Your task to perform on an android device: open app "Speedtest by Ookla" (install if not already installed) and go to login screen Image 0: 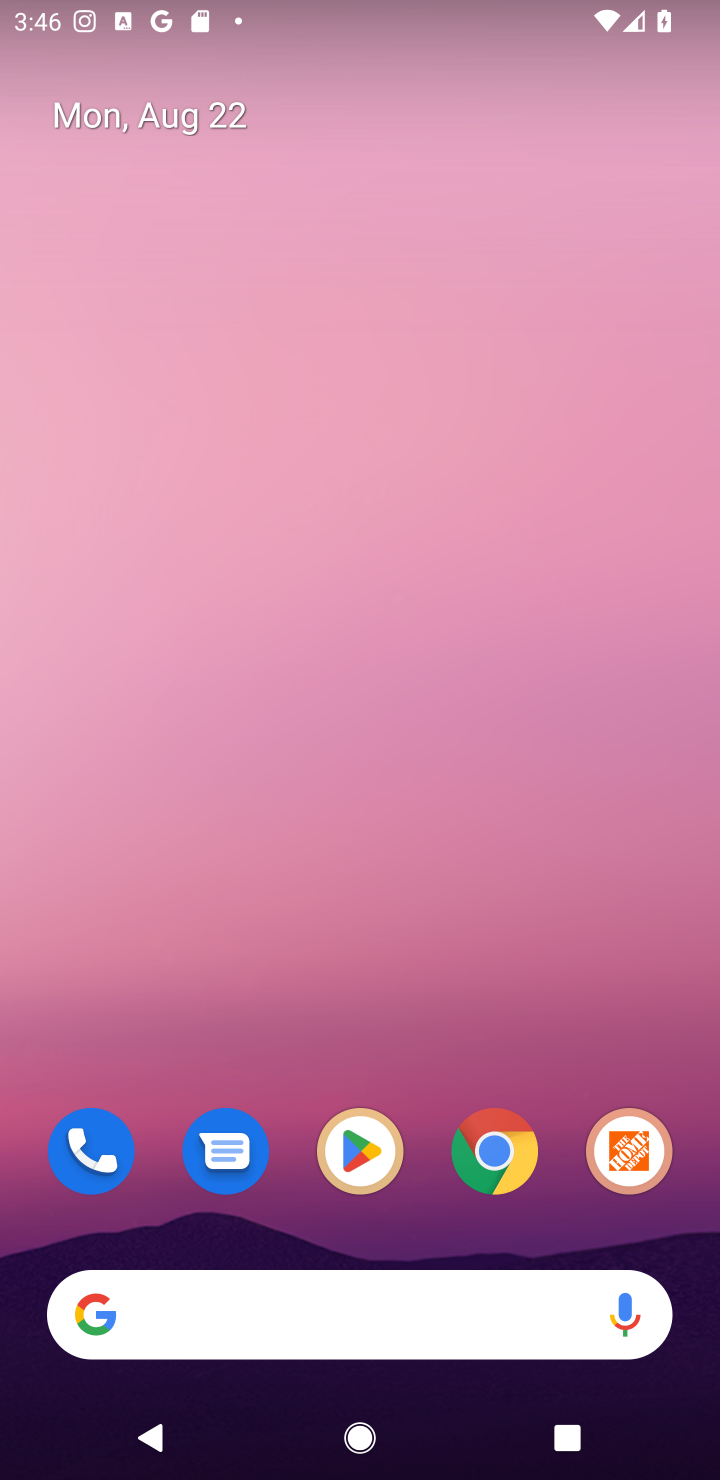
Step 0: press home button
Your task to perform on an android device: open app "Speedtest by Ookla" (install if not already installed) and go to login screen Image 1: 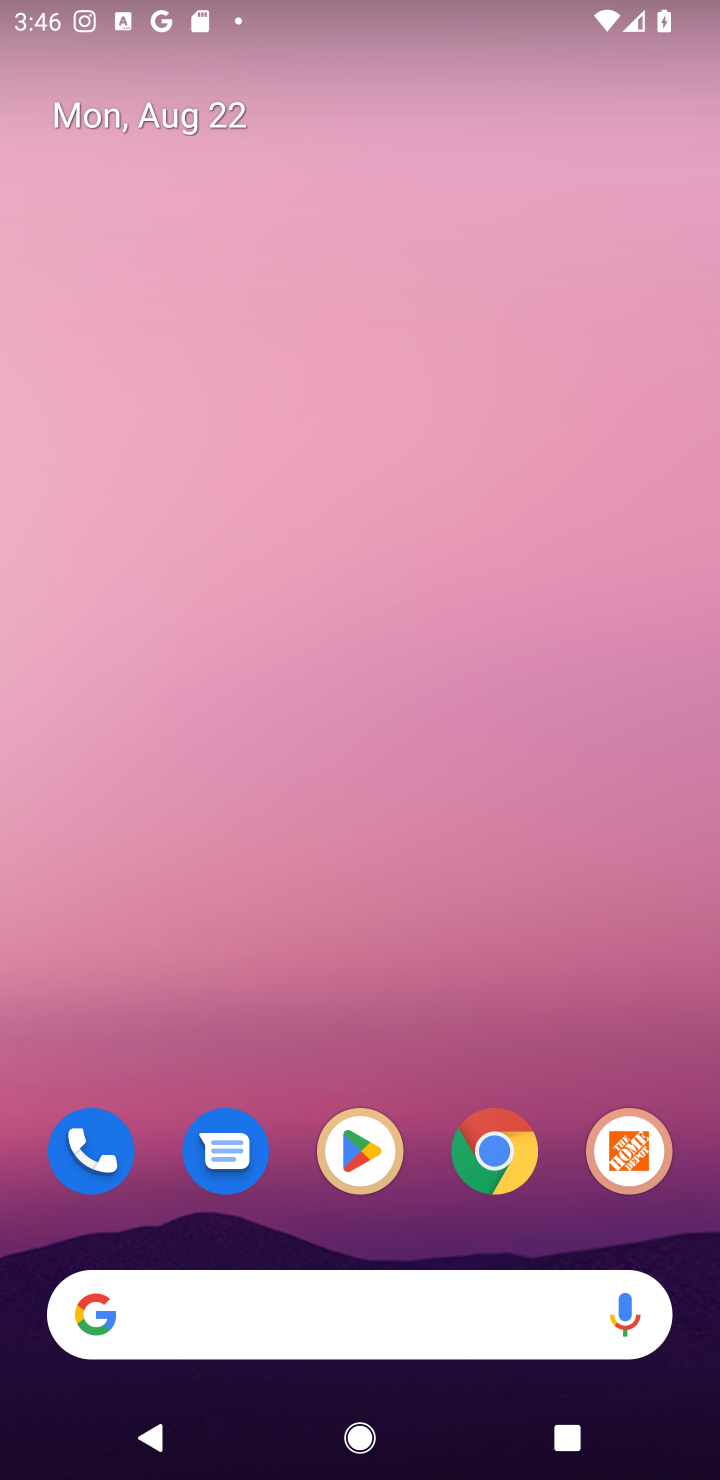
Step 1: click (360, 1161)
Your task to perform on an android device: open app "Speedtest by Ookla" (install if not already installed) and go to login screen Image 2: 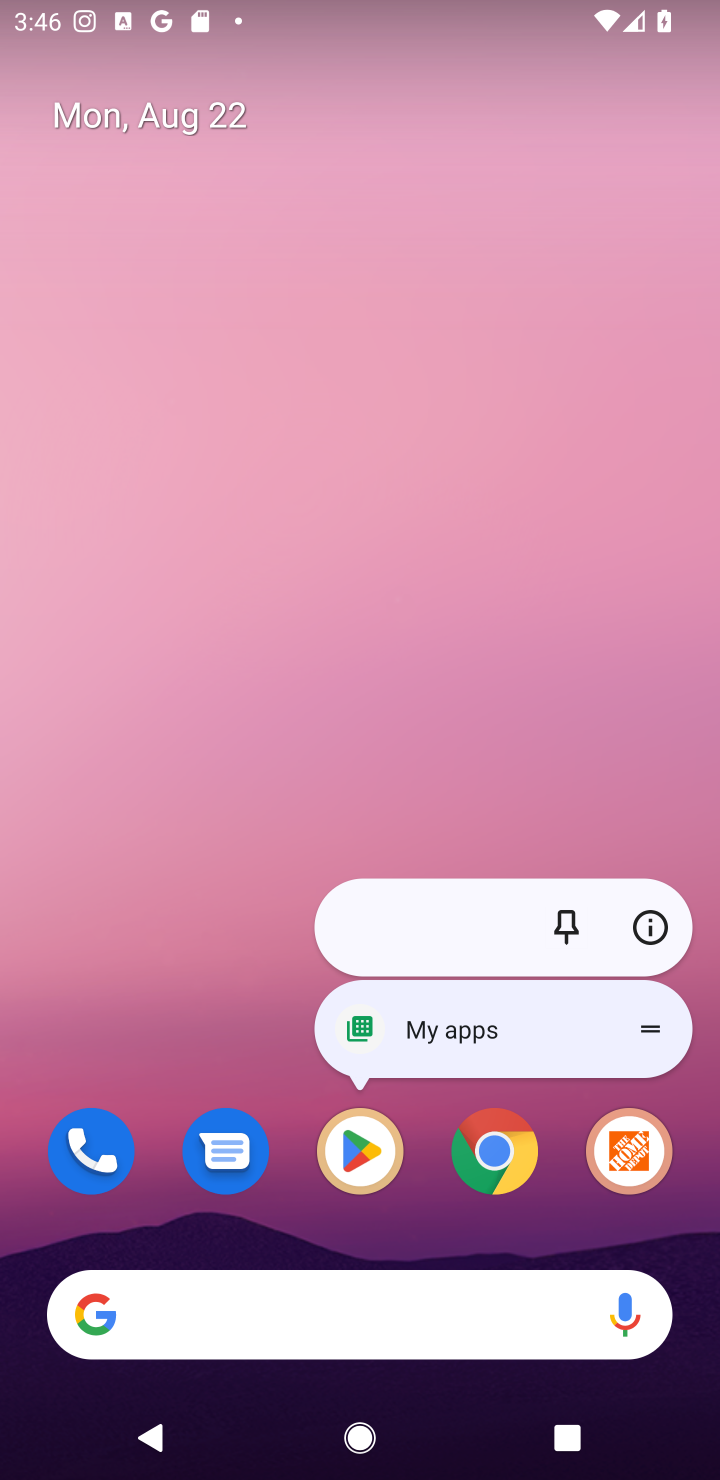
Step 2: click (360, 1142)
Your task to perform on an android device: open app "Speedtest by Ookla" (install if not already installed) and go to login screen Image 3: 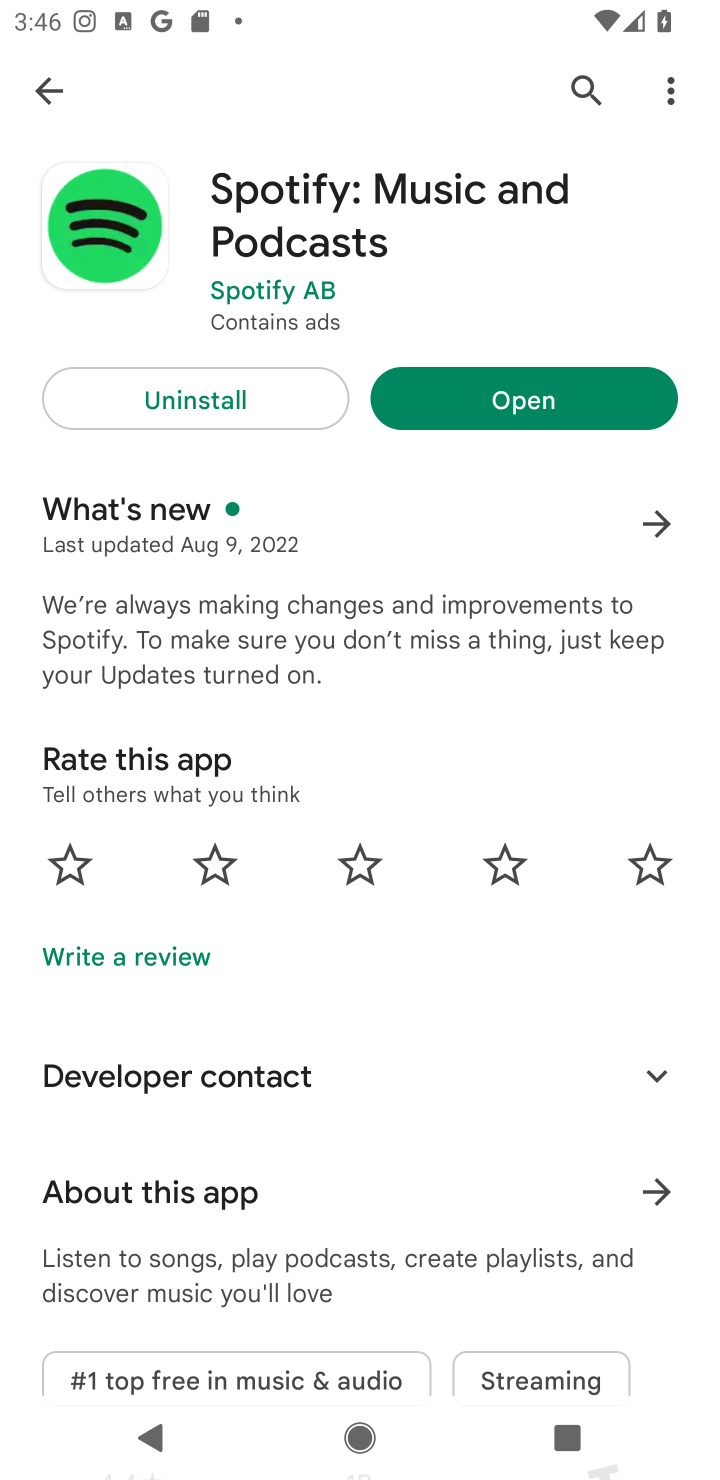
Step 3: click (578, 91)
Your task to perform on an android device: open app "Speedtest by Ookla" (install if not already installed) and go to login screen Image 4: 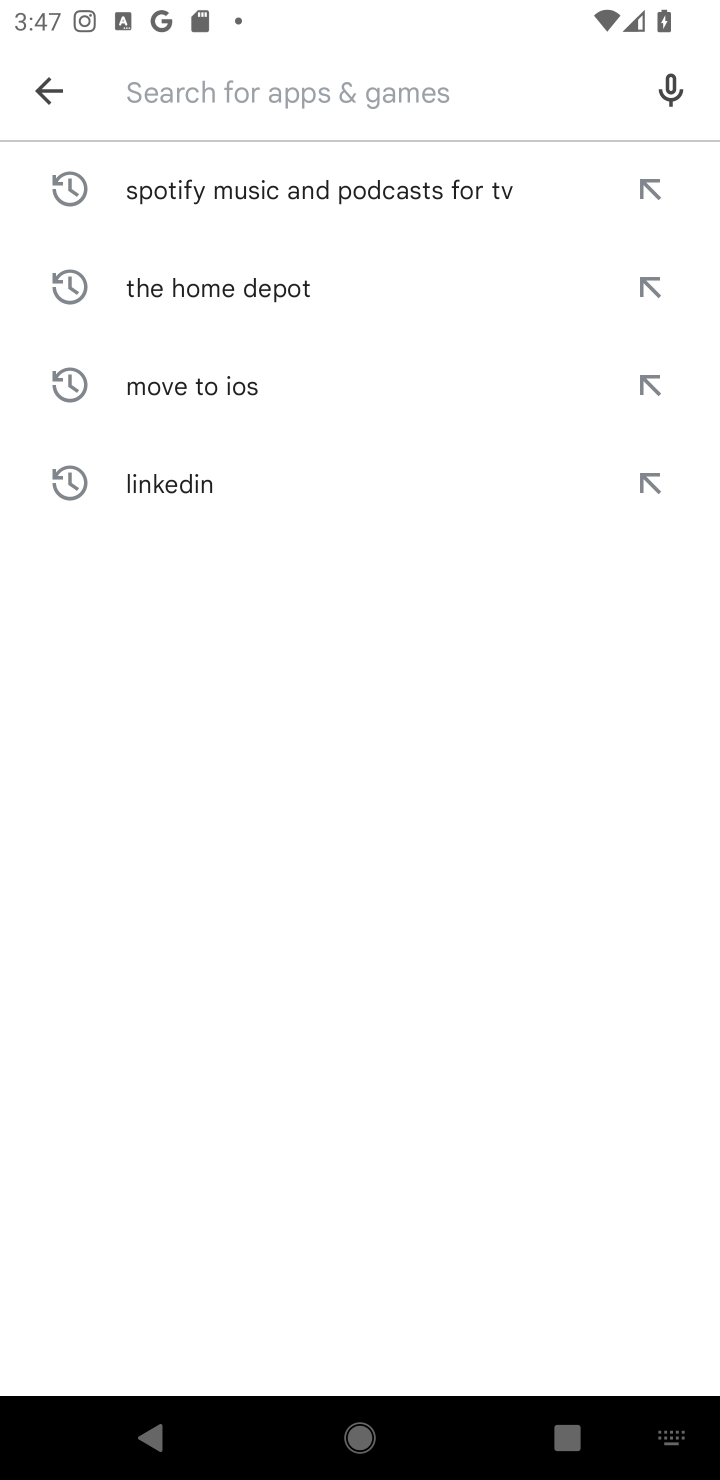
Step 4: type "Speedtest by Ookla"
Your task to perform on an android device: open app "Speedtest by Ookla" (install if not already installed) and go to login screen Image 5: 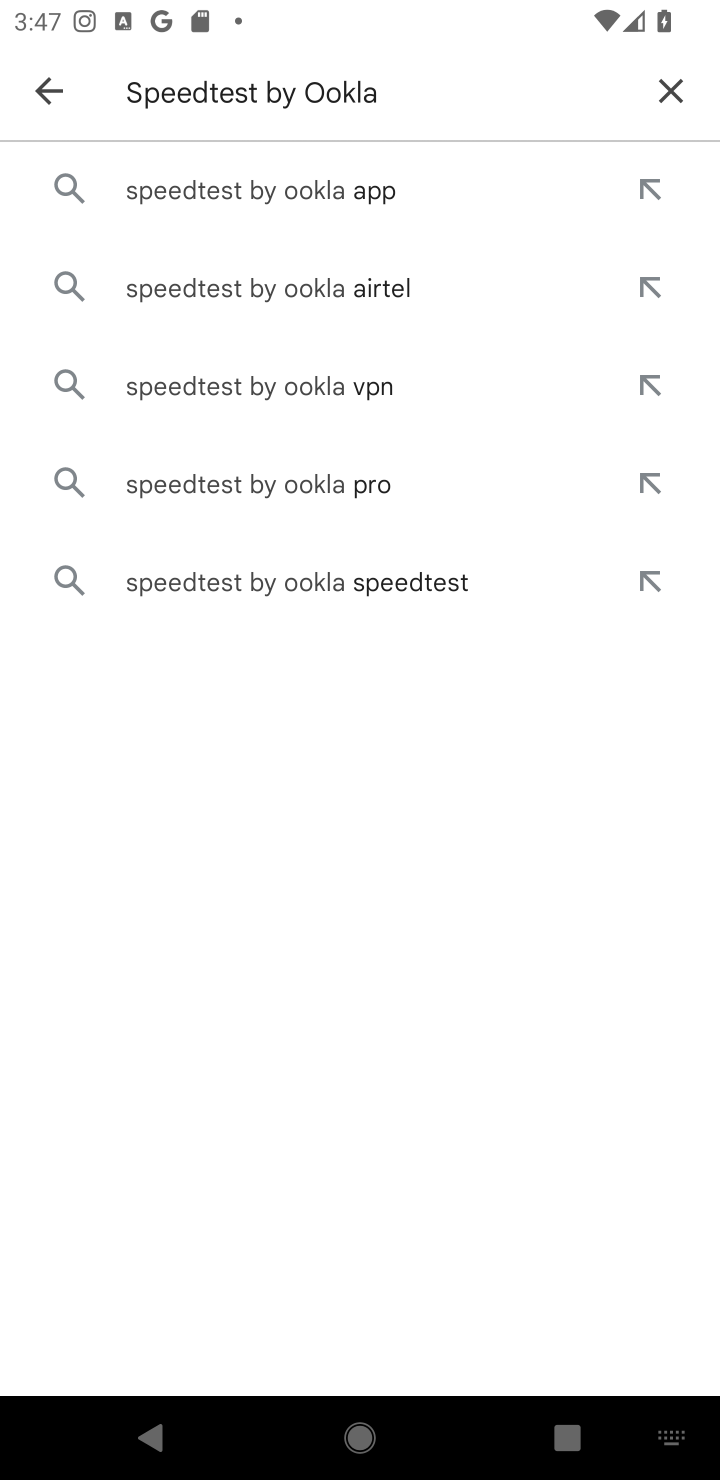
Step 5: click (347, 197)
Your task to perform on an android device: open app "Speedtest by Ookla" (install if not already installed) and go to login screen Image 6: 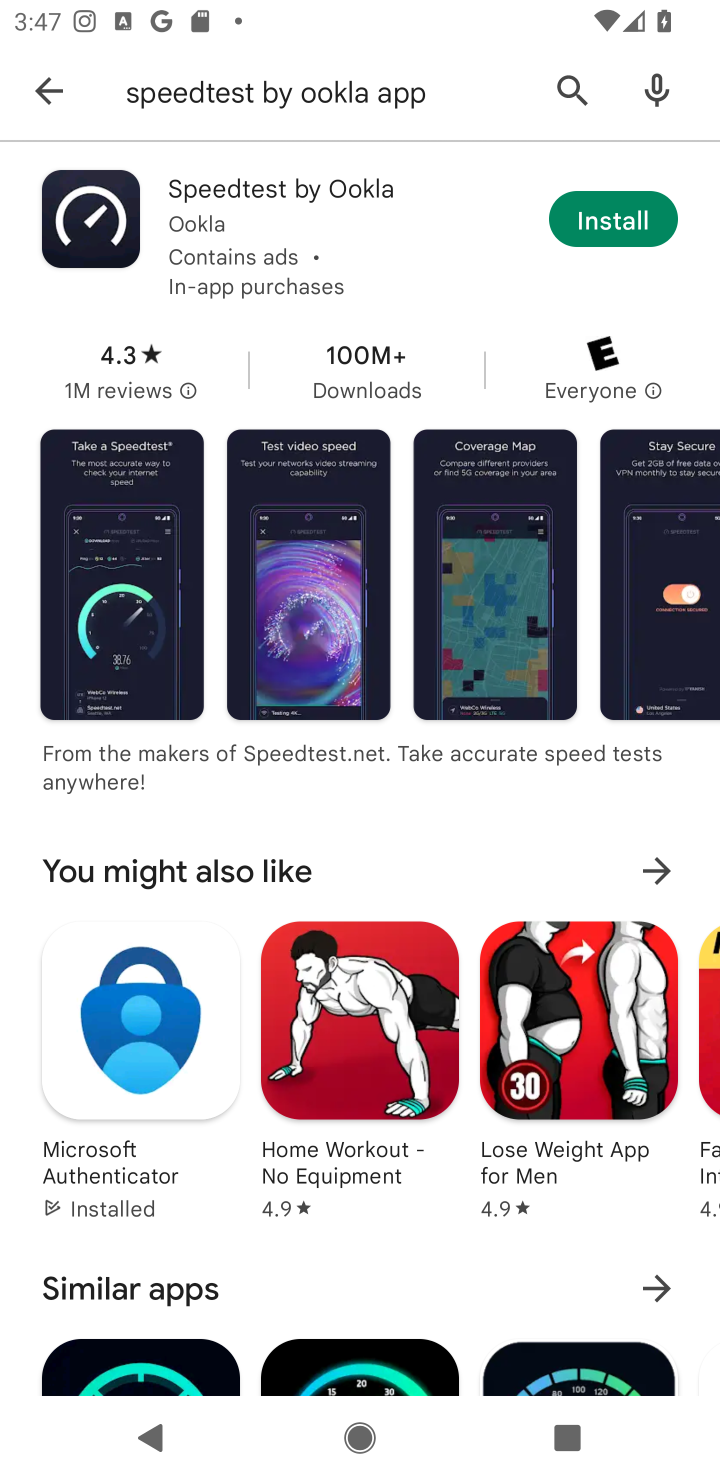
Step 6: click (592, 220)
Your task to perform on an android device: open app "Speedtest by Ookla" (install if not already installed) and go to login screen Image 7: 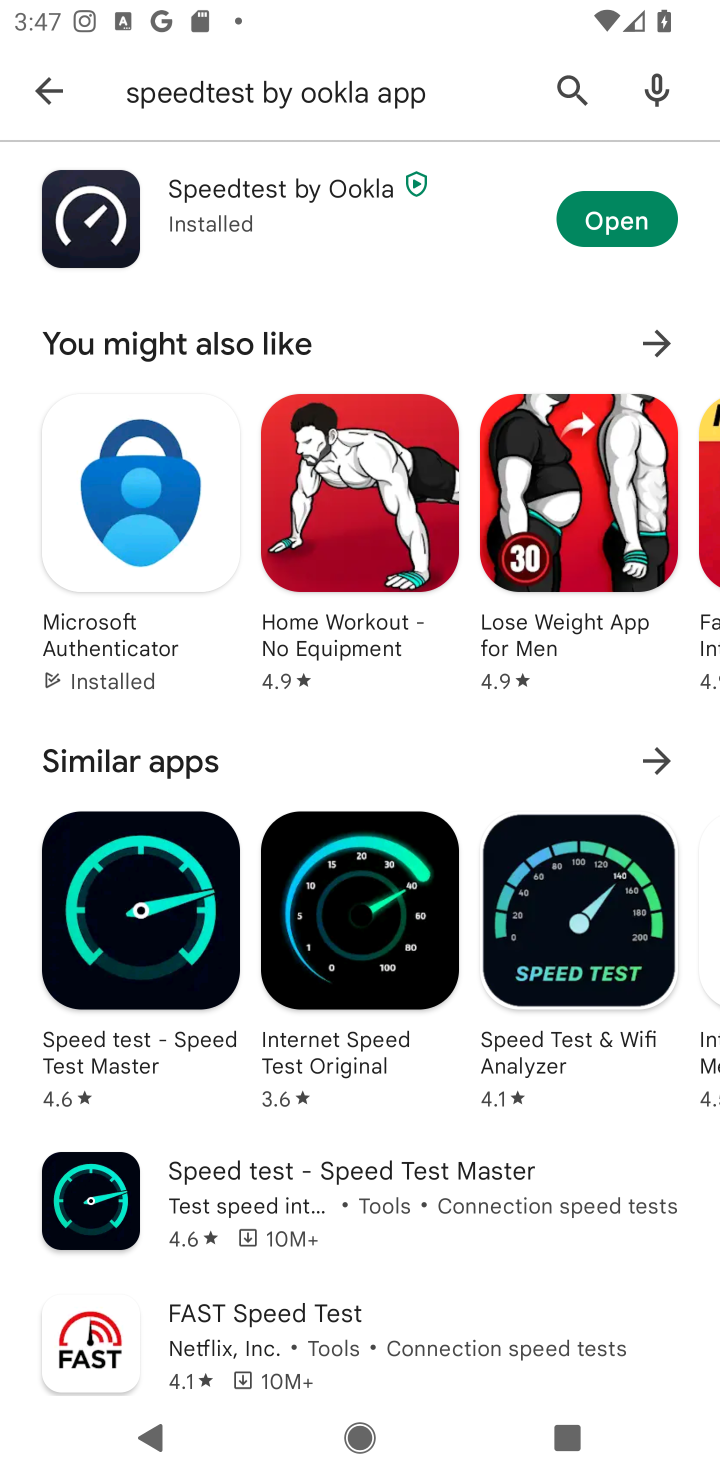
Step 7: click (653, 221)
Your task to perform on an android device: open app "Speedtest by Ookla" (install if not already installed) and go to login screen Image 8: 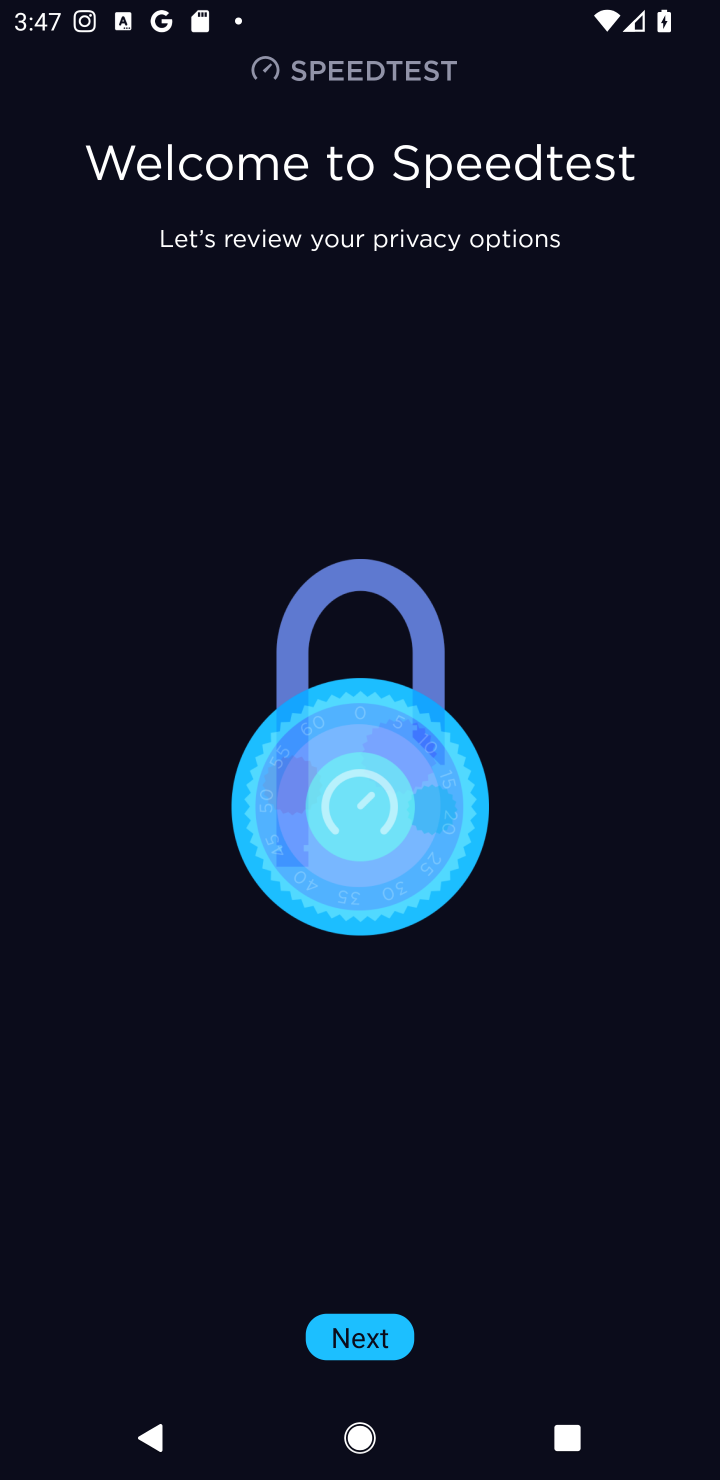
Step 8: click (368, 1351)
Your task to perform on an android device: open app "Speedtest by Ookla" (install if not already installed) and go to login screen Image 9: 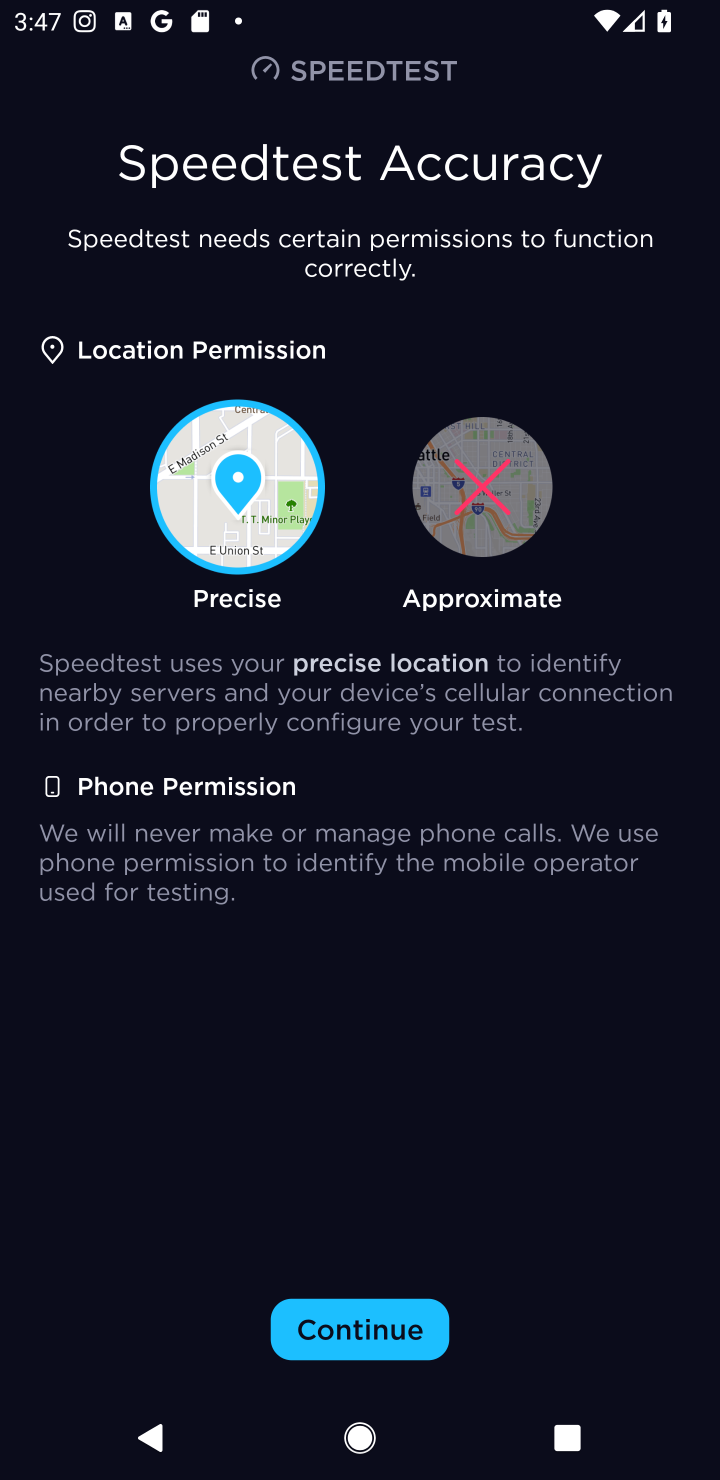
Step 9: click (369, 1330)
Your task to perform on an android device: open app "Speedtest by Ookla" (install if not already installed) and go to login screen Image 10: 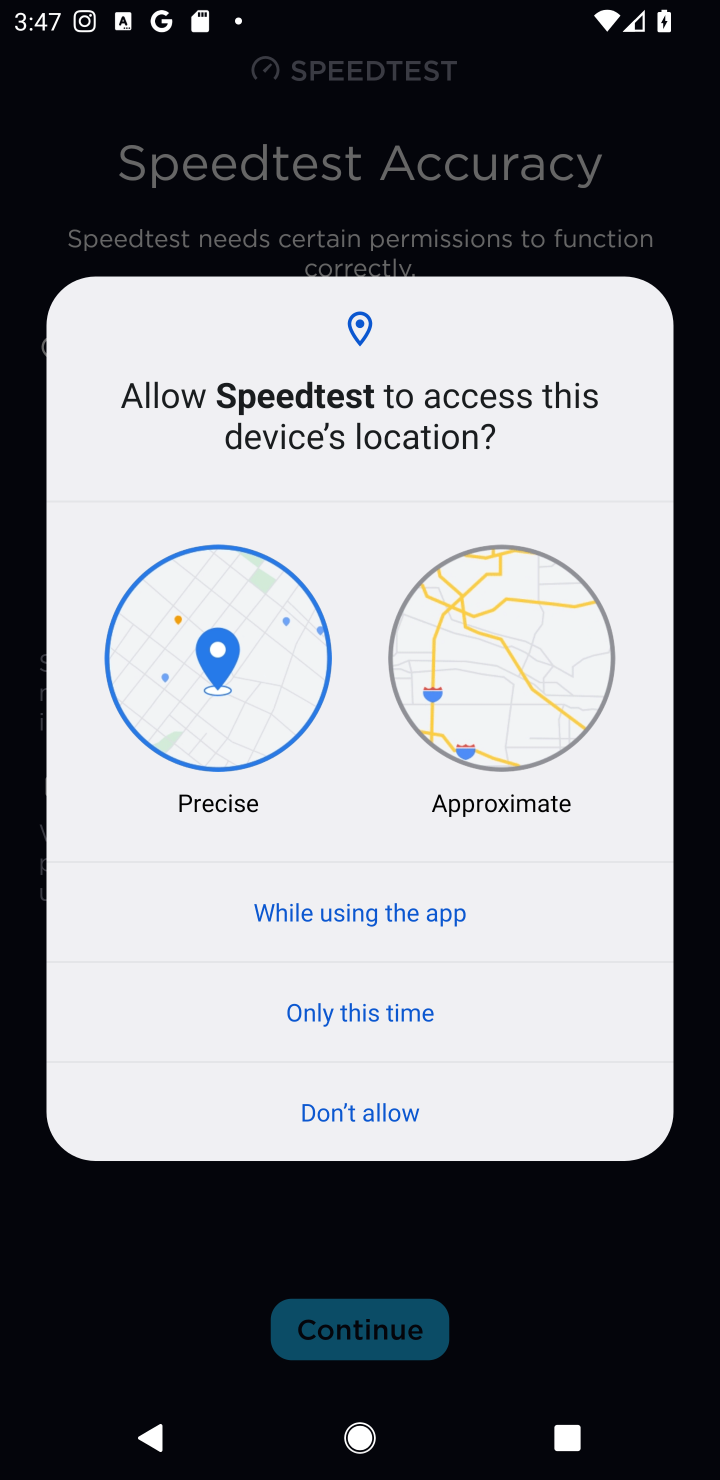
Step 10: task complete